Your task to perform on an android device: toggle javascript in the chrome app Image 0: 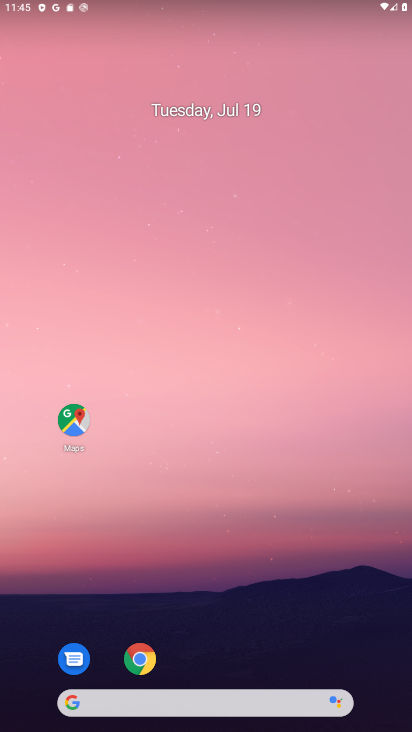
Step 0: press home button
Your task to perform on an android device: toggle javascript in the chrome app Image 1: 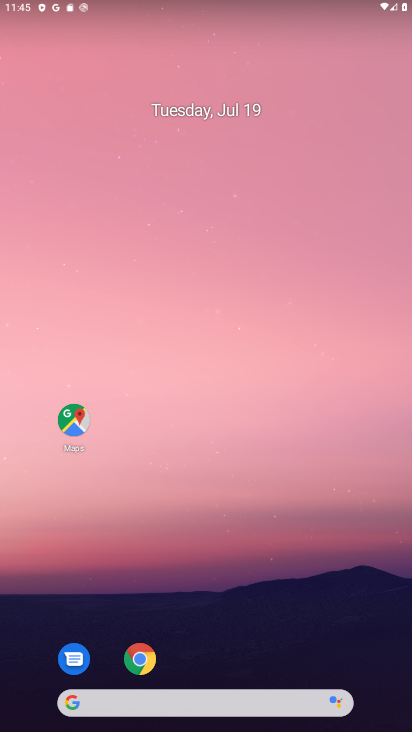
Step 1: click (140, 661)
Your task to perform on an android device: toggle javascript in the chrome app Image 2: 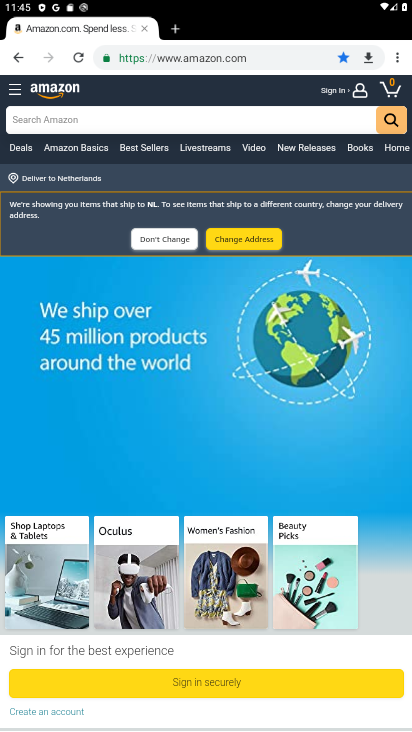
Step 2: click (396, 60)
Your task to perform on an android device: toggle javascript in the chrome app Image 3: 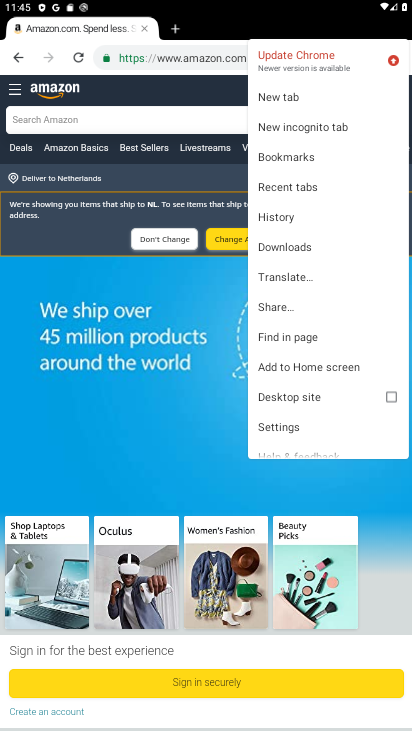
Step 3: click (308, 427)
Your task to perform on an android device: toggle javascript in the chrome app Image 4: 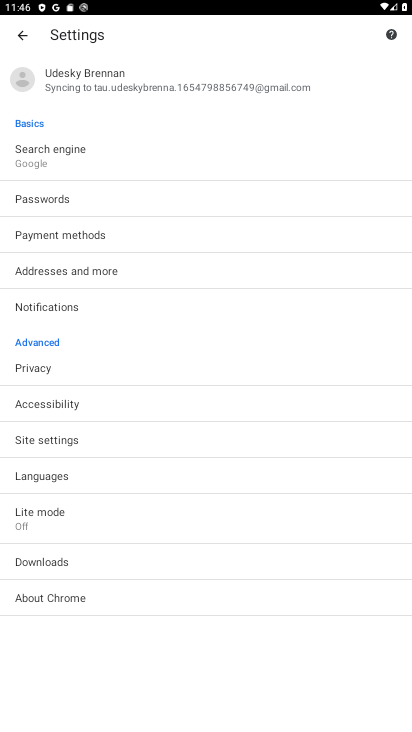
Step 4: click (81, 443)
Your task to perform on an android device: toggle javascript in the chrome app Image 5: 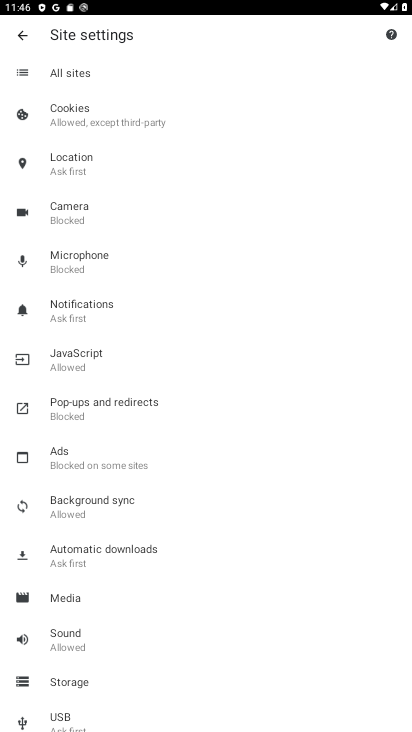
Step 5: click (99, 361)
Your task to perform on an android device: toggle javascript in the chrome app Image 6: 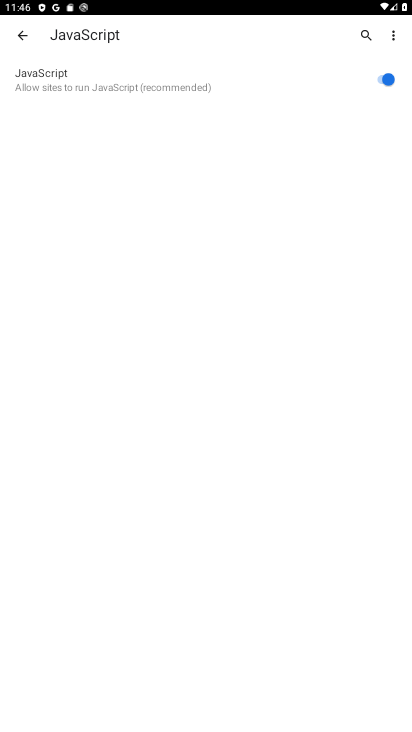
Step 6: click (380, 75)
Your task to perform on an android device: toggle javascript in the chrome app Image 7: 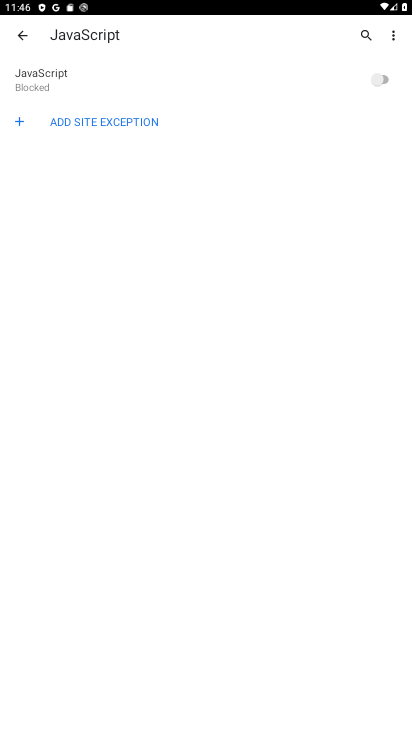
Step 7: task complete